Your task to perform on an android device: What's the weather going to be tomorrow? Image 0: 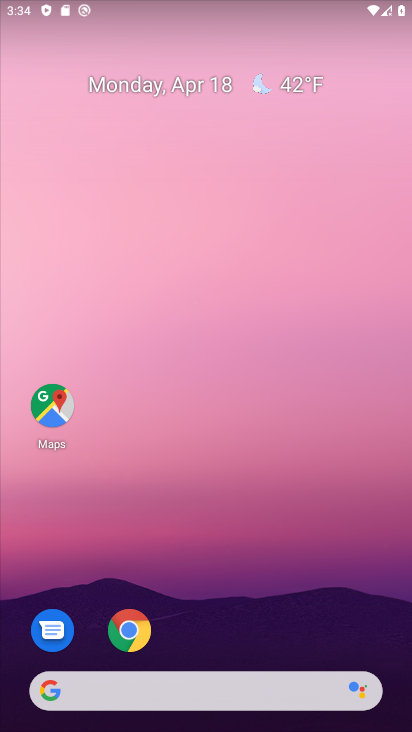
Step 0: drag from (226, 627) to (214, 170)
Your task to perform on an android device: What's the weather going to be tomorrow? Image 1: 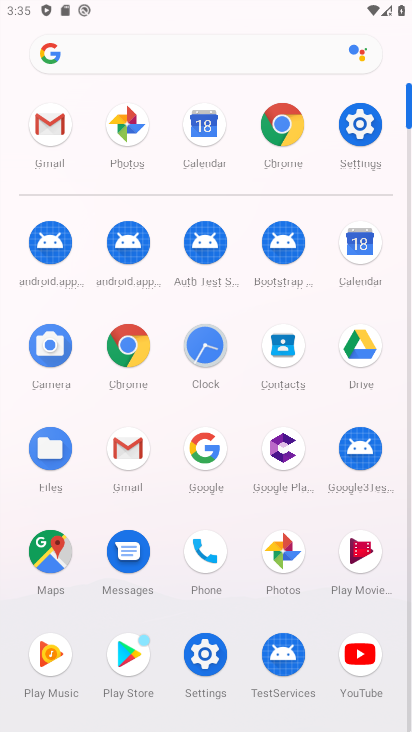
Step 1: click (289, 127)
Your task to perform on an android device: What's the weather going to be tomorrow? Image 2: 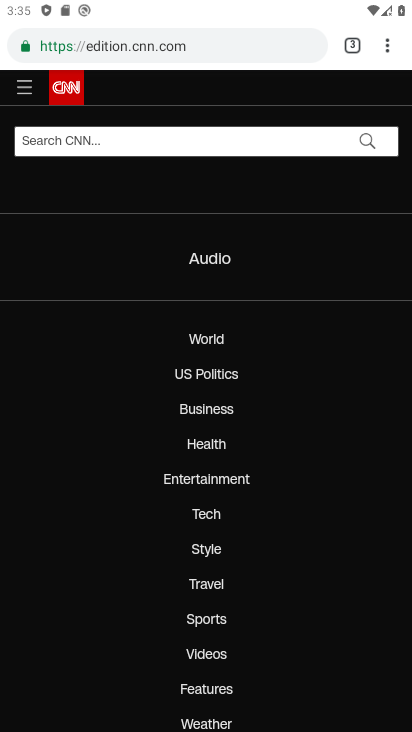
Step 2: click (389, 34)
Your task to perform on an android device: What's the weather going to be tomorrow? Image 3: 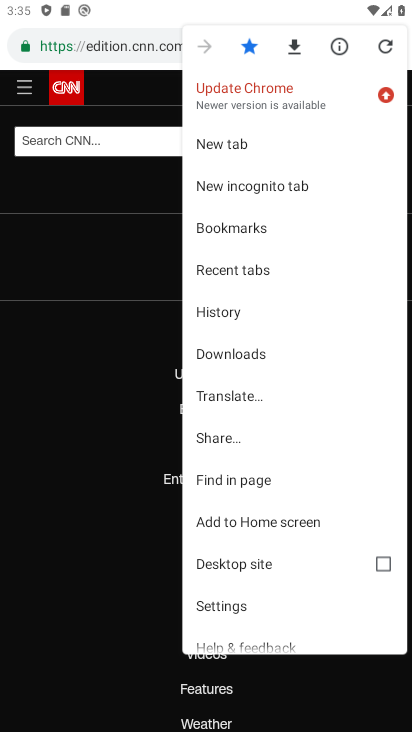
Step 3: click (254, 142)
Your task to perform on an android device: What's the weather going to be tomorrow? Image 4: 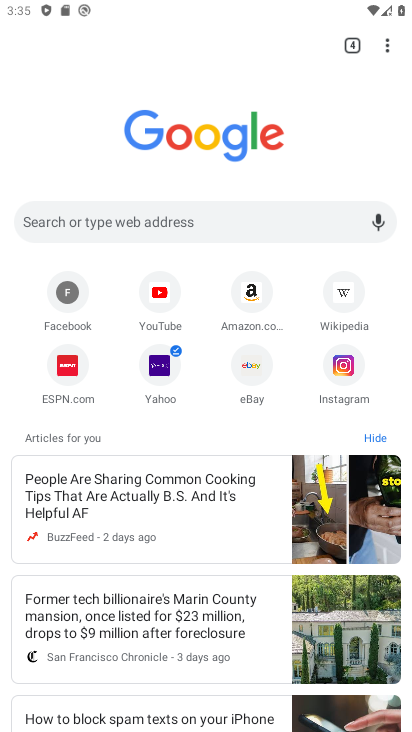
Step 4: click (258, 222)
Your task to perform on an android device: What's the weather going to be tomorrow? Image 5: 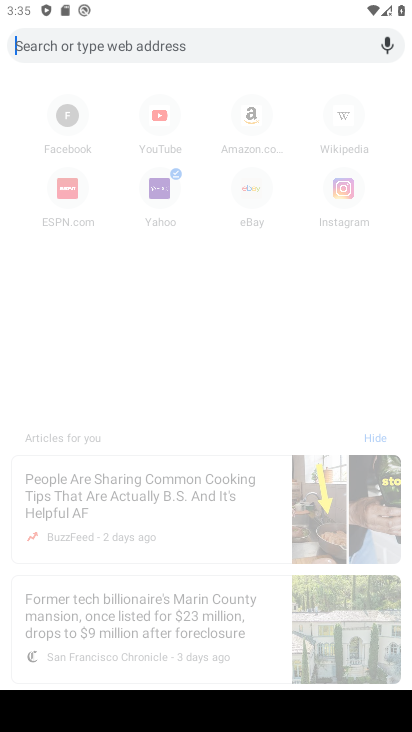
Step 5: type "What's the weather going to be tomorrow?"
Your task to perform on an android device: What's the weather going to be tomorrow? Image 6: 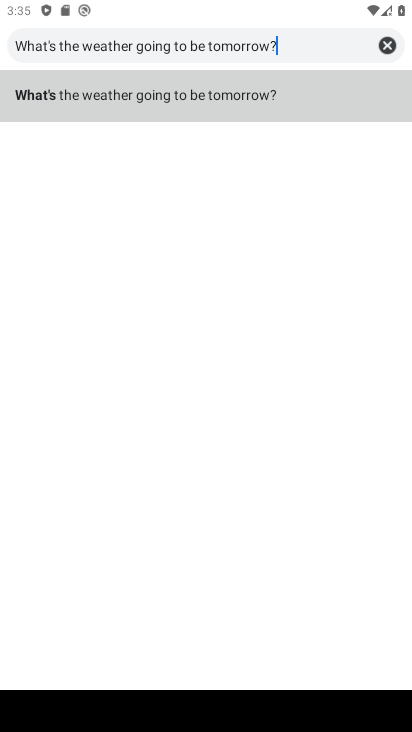
Step 6: click (254, 89)
Your task to perform on an android device: What's the weather going to be tomorrow? Image 7: 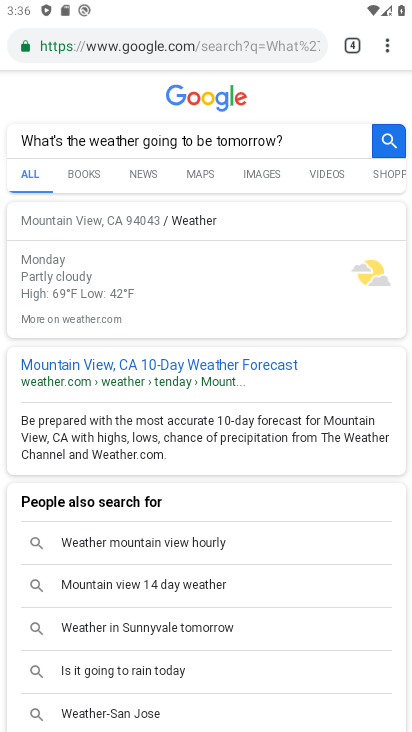
Step 7: click (163, 358)
Your task to perform on an android device: What's the weather going to be tomorrow? Image 8: 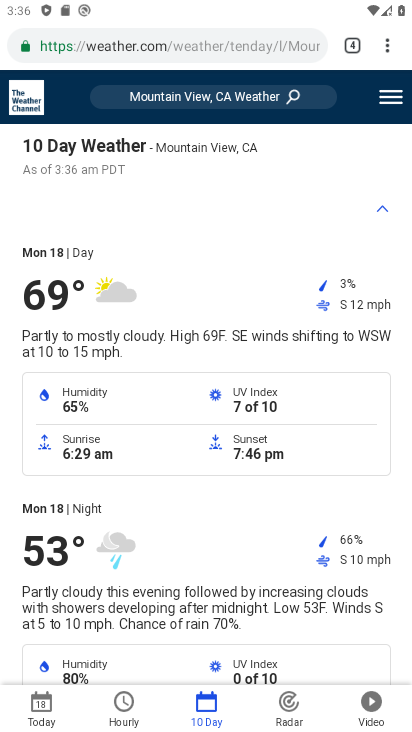
Step 8: task complete